Your task to perform on an android device: turn on location history Image 0: 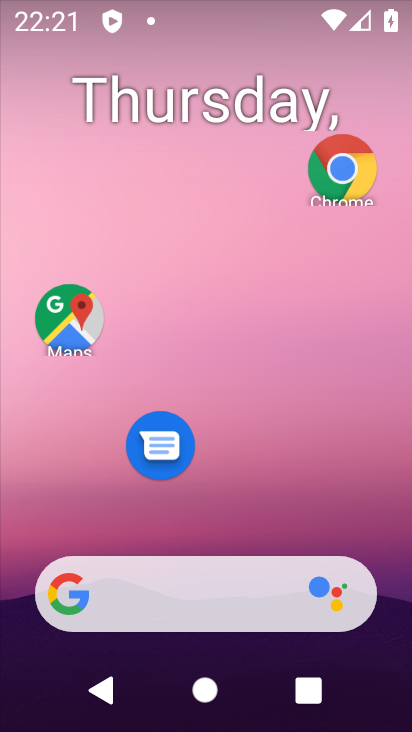
Step 0: click (285, 226)
Your task to perform on an android device: turn on location history Image 1: 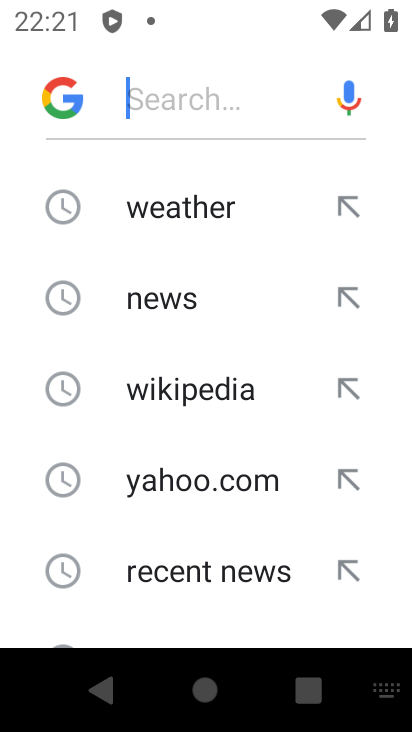
Step 1: press home button
Your task to perform on an android device: turn on location history Image 2: 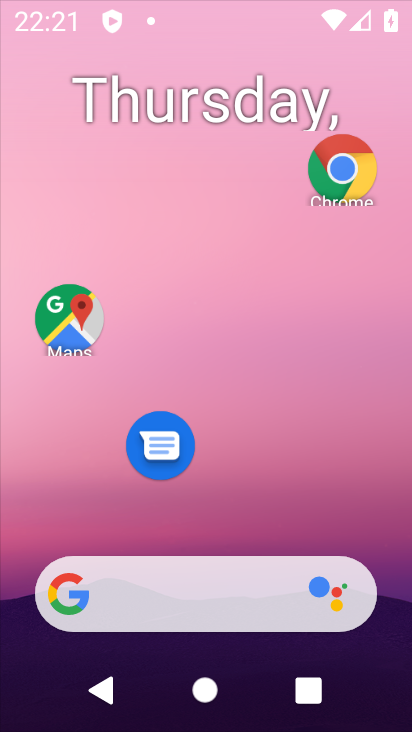
Step 2: drag from (193, 576) to (220, 231)
Your task to perform on an android device: turn on location history Image 3: 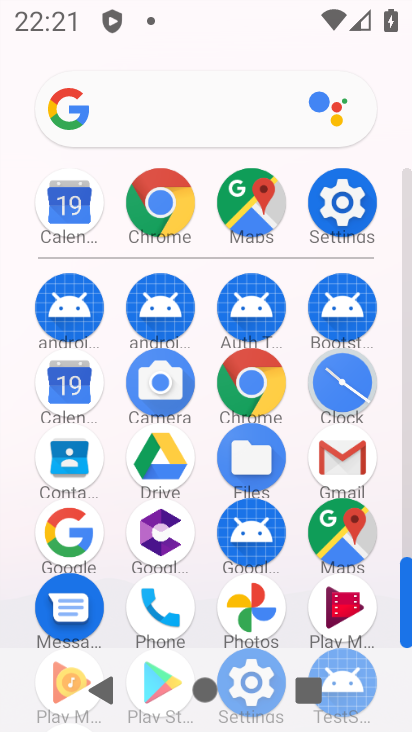
Step 3: click (333, 200)
Your task to perform on an android device: turn on location history Image 4: 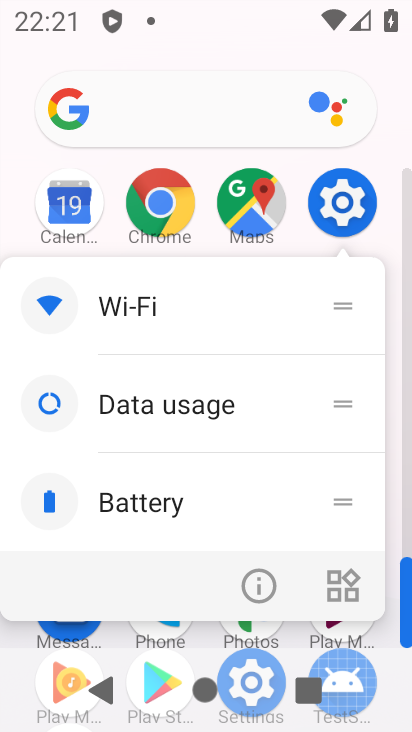
Step 4: click (244, 591)
Your task to perform on an android device: turn on location history Image 5: 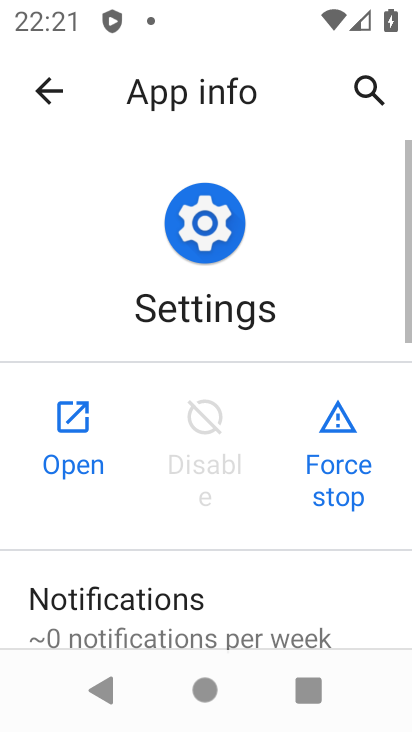
Step 5: click (104, 446)
Your task to perform on an android device: turn on location history Image 6: 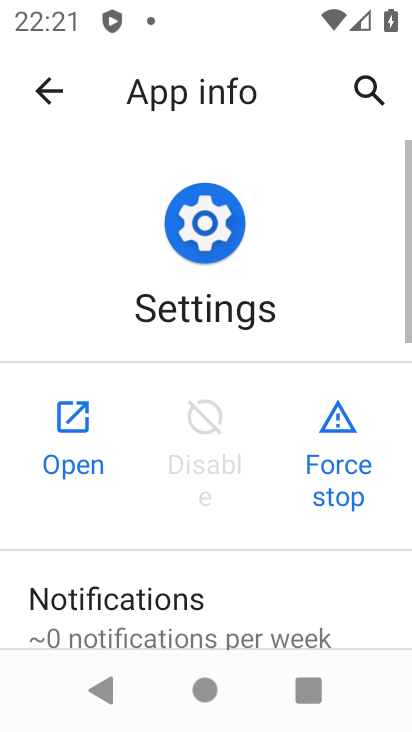
Step 6: click (104, 446)
Your task to perform on an android device: turn on location history Image 7: 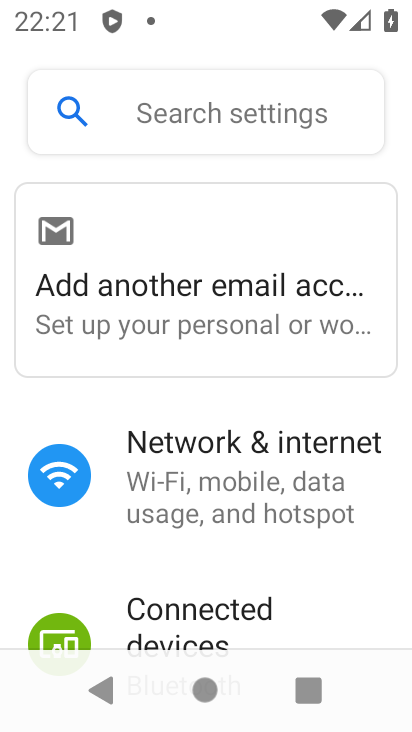
Step 7: drag from (183, 589) to (266, 189)
Your task to perform on an android device: turn on location history Image 8: 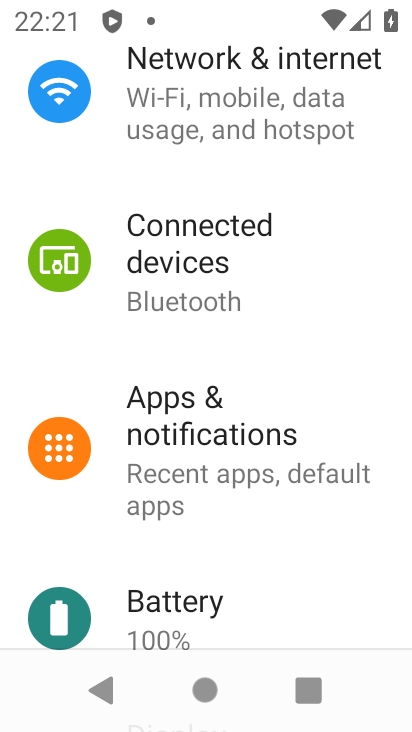
Step 8: drag from (253, 597) to (280, 35)
Your task to perform on an android device: turn on location history Image 9: 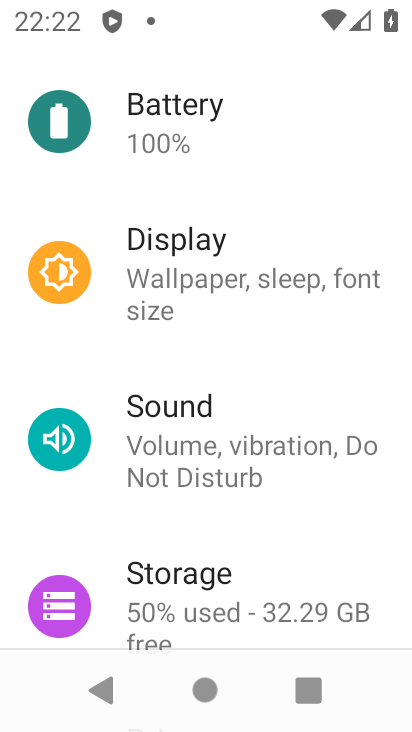
Step 9: drag from (242, 576) to (305, 139)
Your task to perform on an android device: turn on location history Image 10: 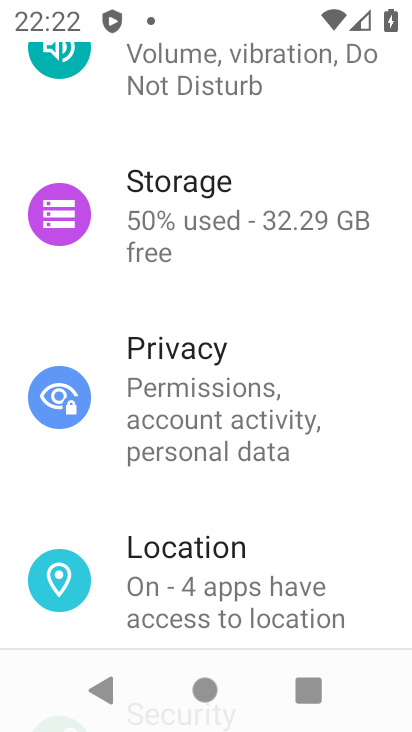
Step 10: click (222, 565)
Your task to perform on an android device: turn on location history Image 11: 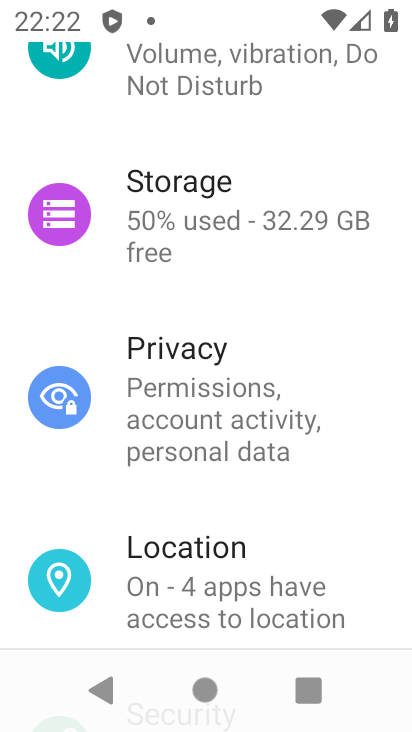
Step 11: click (222, 565)
Your task to perform on an android device: turn on location history Image 12: 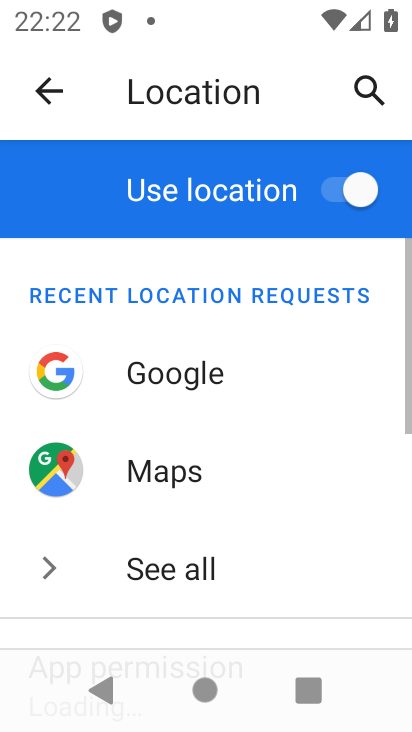
Step 12: drag from (220, 556) to (271, 124)
Your task to perform on an android device: turn on location history Image 13: 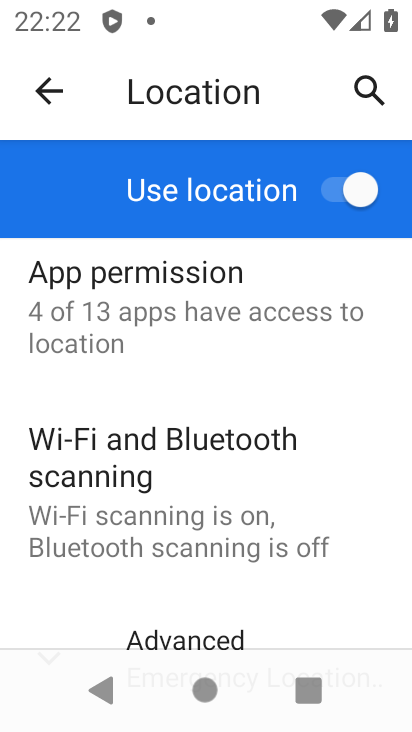
Step 13: drag from (257, 582) to (241, 333)
Your task to perform on an android device: turn on location history Image 14: 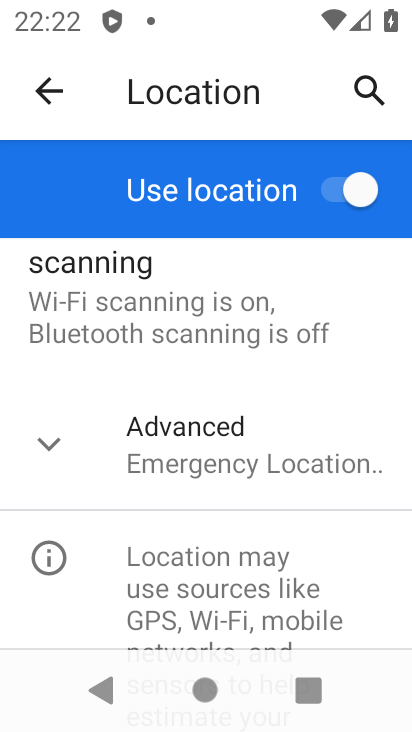
Step 14: click (151, 500)
Your task to perform on an android device: turn on location history Image 15: 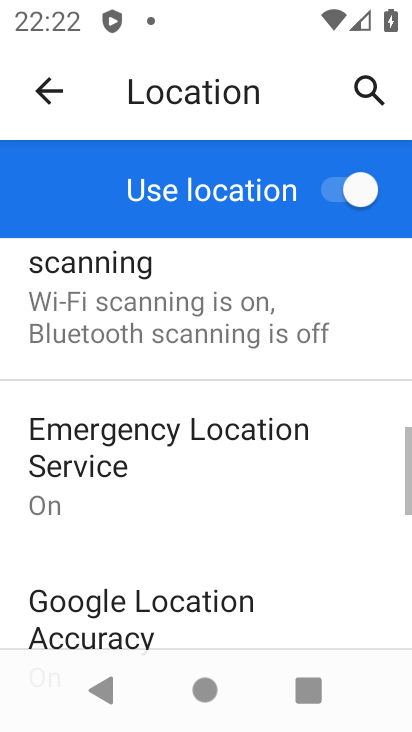
Step 15: drag from (272, 573) to (324, 331)
Your task to perform on an android device: turn on location history Image 16: 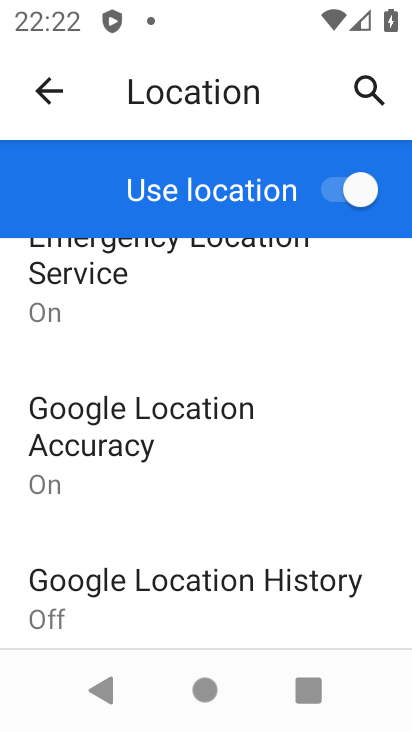
Step 16: drag from (196, 595) to (251, 414)
Your task to perform on an android device: turn on location history Image 17: 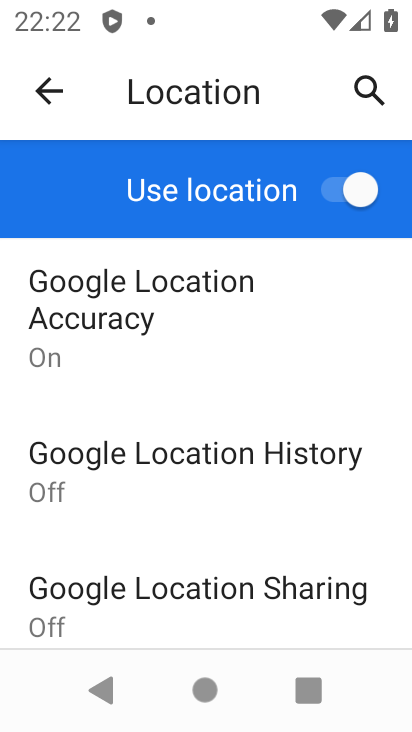
Step 17: click (159, 448)
Your task to perform on an android device: turn on location history Image 18: 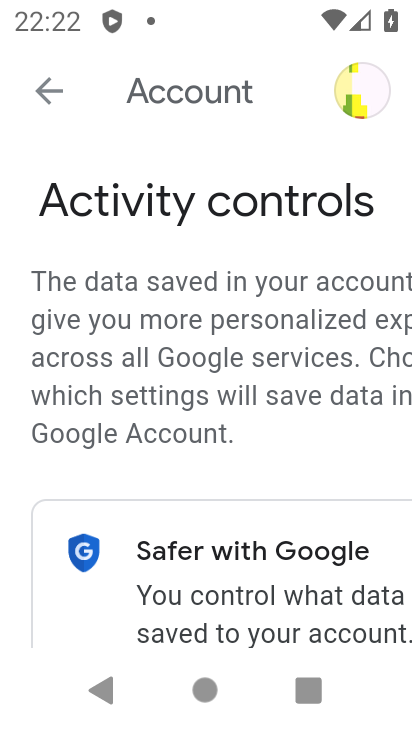
Step 18: task complete